Your task to perform on an android device: see creations saved in the google photos Image 0: 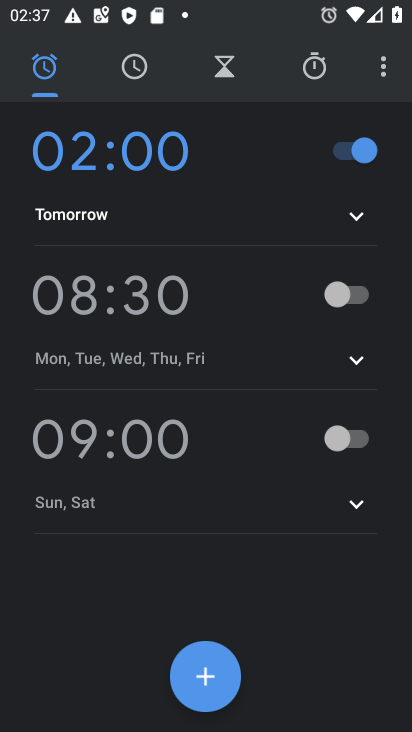
Step 0: press home button
Your task to perform on an android device: see creations saved in the google photos Image 1: 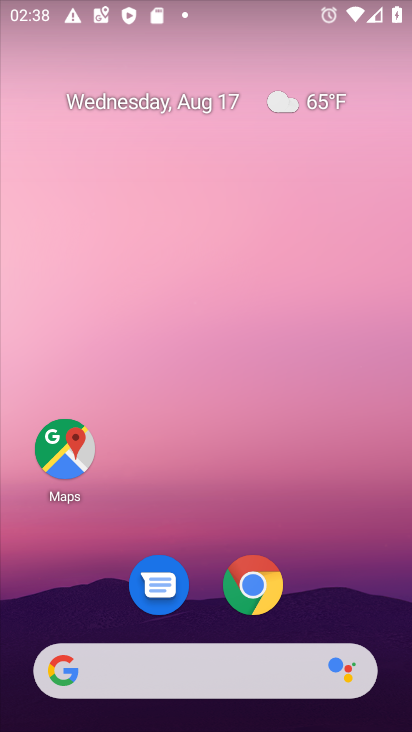
Step 1: drag from (202, 310) to (221, 5)
Your task to perform on an android device: see creations saved in the google photos Image 2: 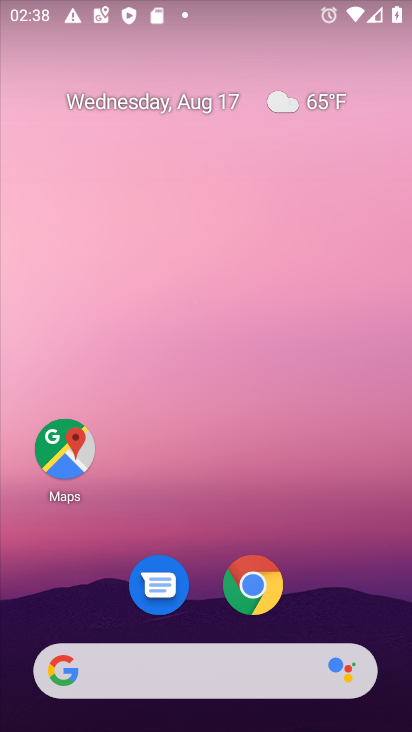
Step 2: drag from (200, 568) to (228, 0)
Your task to perform on an android device: see creations saved in the google photos Image 3: 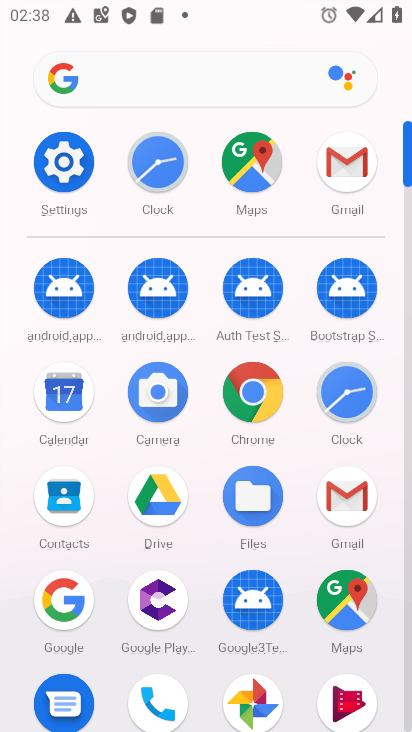
Step 3: click (255, 694)
Your task to perform on an android device: see creations saved in the google photos Image 4: 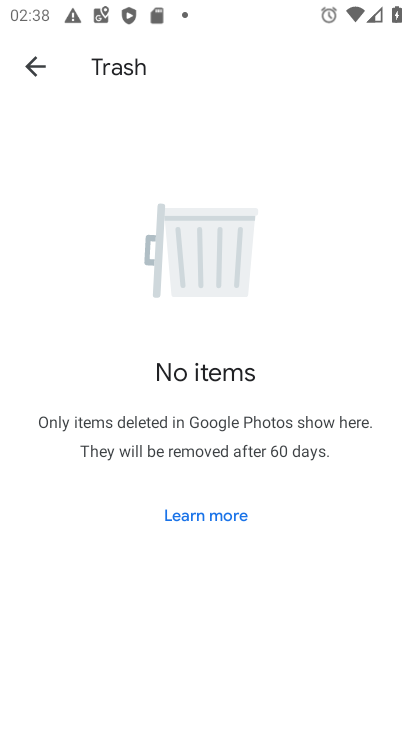
Step 4: click (40, 69)
Your task to perform on an android device: see creations saved in the google photos Image 5: 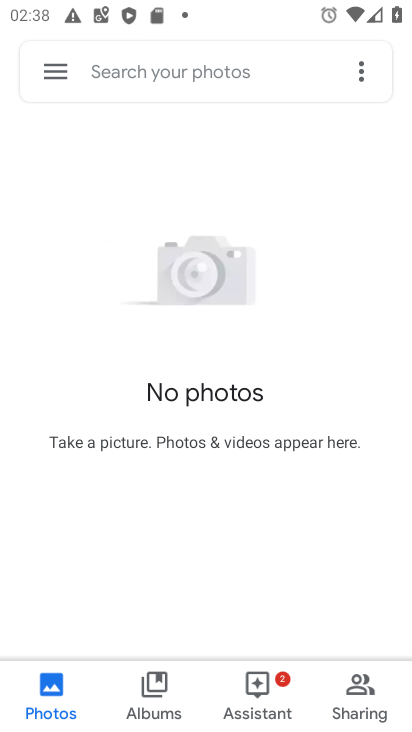
Step 5: click (197, 65)
Your task to perform on an android device: see creations saved in the google photos Image 6: 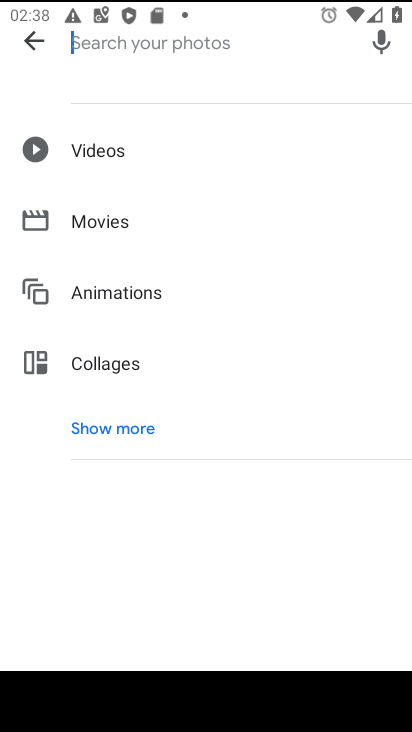
Step 6: click (131, 426)
Your task to perform on an android device: see creations saved in the google photos Image 7: 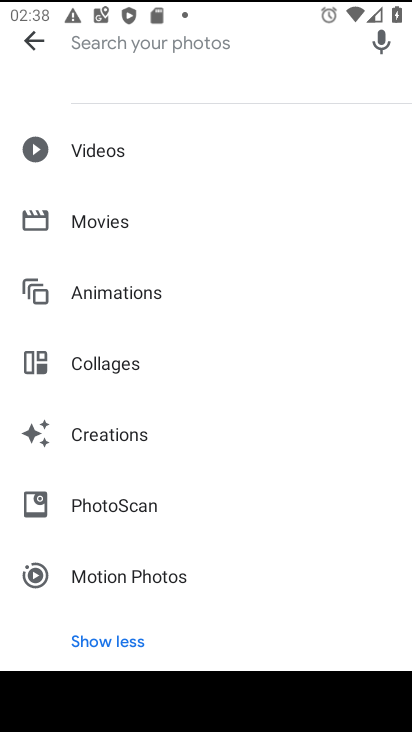
Step 7: click (131, 431)
Your task to perform on an android device: see creations saved in the google photos Image 8: 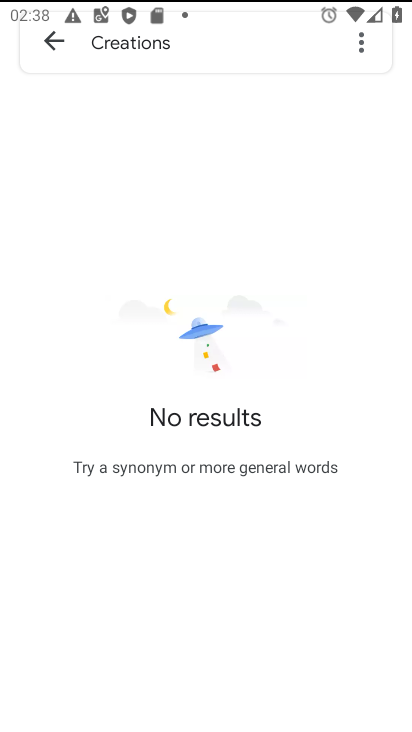
Step 8: task complete